Your task to perform on an android device: add a label to a message in the gmail app Image 0: 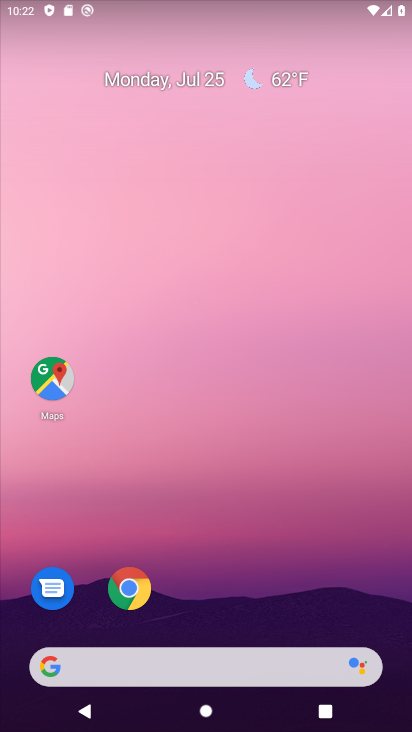
Step 0: drag from (13, 599) to (167, 188)
Your task to perform on an android device: add a label to a message in the gmail app Image 1: 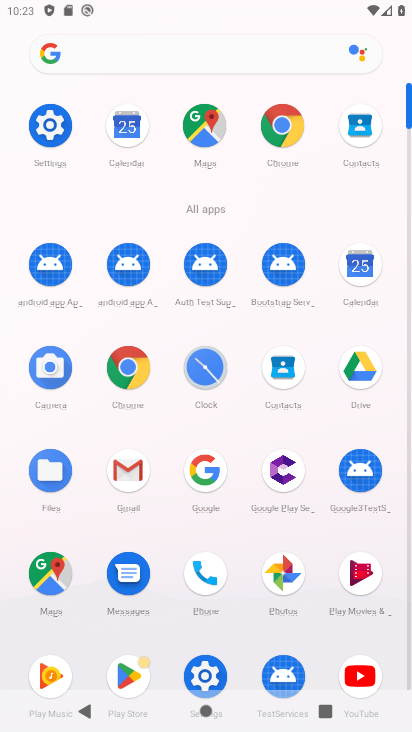
Step 1: click (127, 476)
Your task to perform on an android device: add a label to a message in the gmail app Image 2: 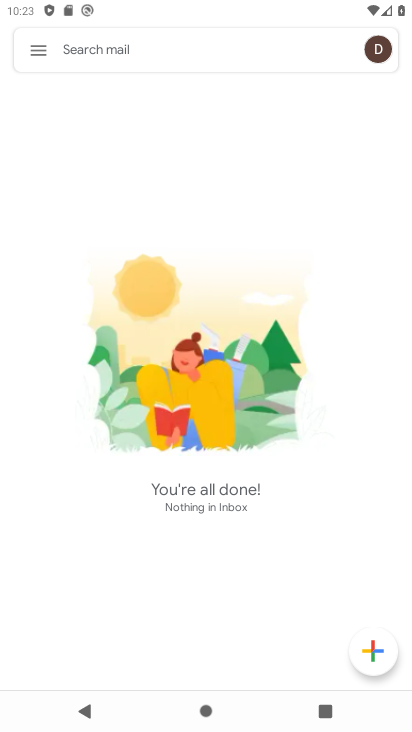
Step 2: task complete